Your task to perform on an android device: change alarm snooze length Image 0: 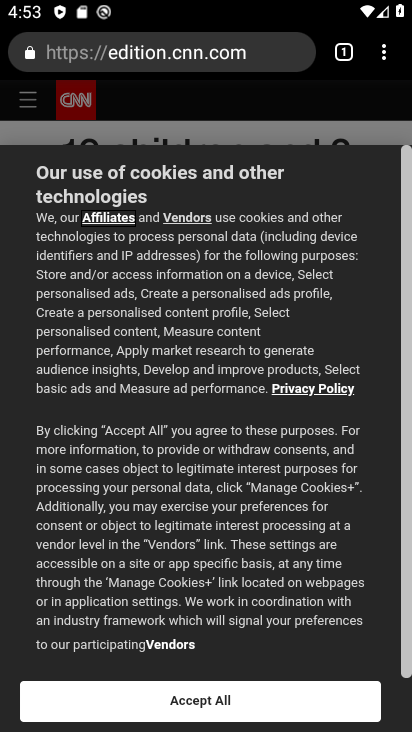
Step 0: press home button
Your task to perform on an android device: change alarm snooze length Image 1: 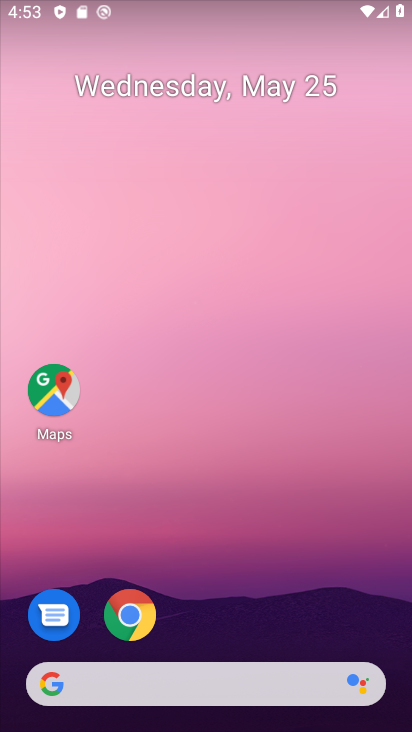
Step 1: drag from (285, 643) to (279, 183)
Your task to perform on an android device: change alarm snooze length Image 2: 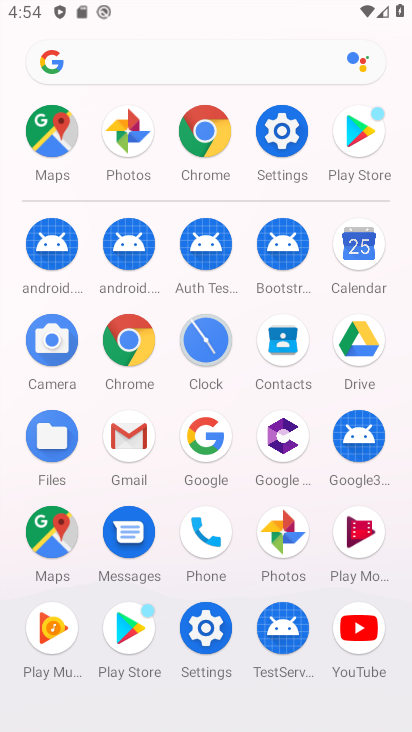
Step 2: click (219, 638)
Your task to perform on an android device: change alarm snooze length Image 3: 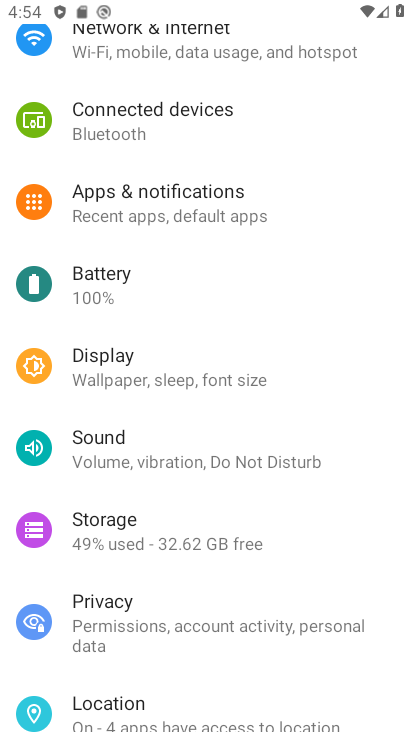
Step 3: press home button
Your task to perform on an android device: change alarm snooze length Image 4: 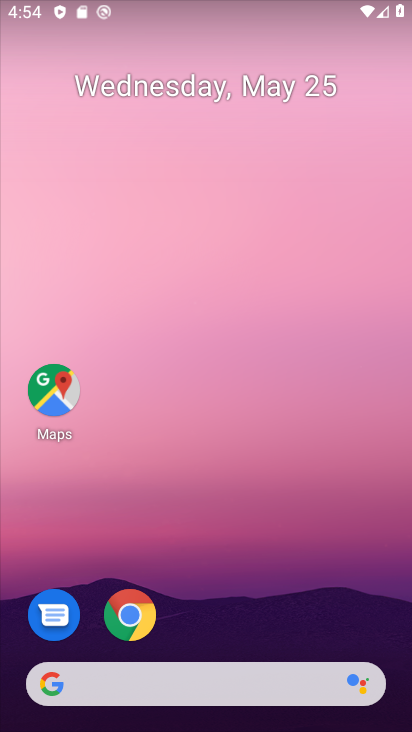
Step 4: drag from (264, 604) to (331, 33)
Your task to perform on an android device: change alarm snooze length Image 5: 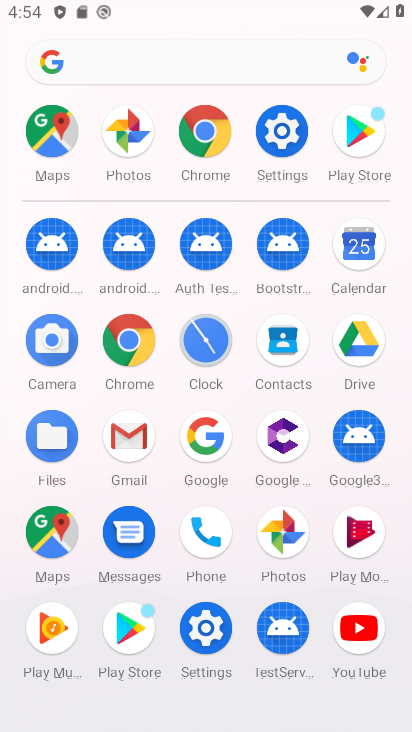
Step 5: click (203, 347)
Your task to perform on an android device: change alarm snooze length Image 6: 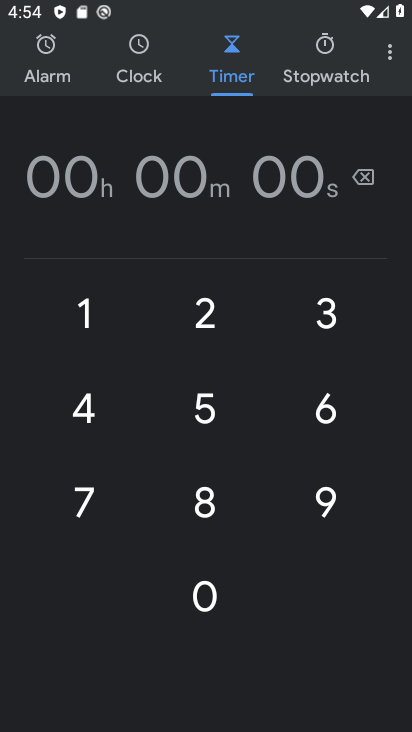
Step 6: click (396, 50)
Your task to perform on an android device: change alarm snooze length Image 7: 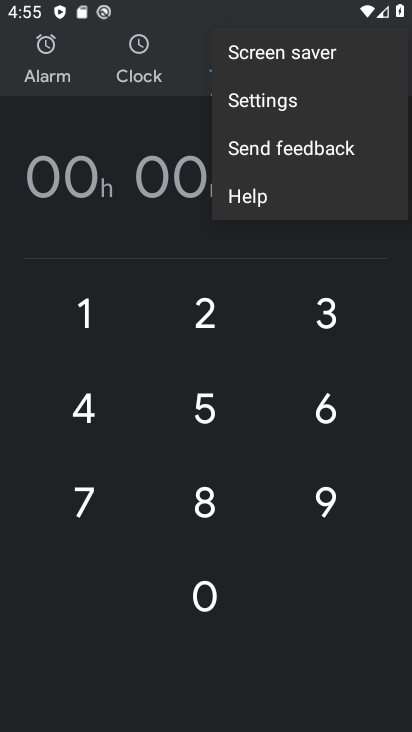
Step 7: click (255, 97)
Your task to perform on an android device: change alarm snooze length Image 8: 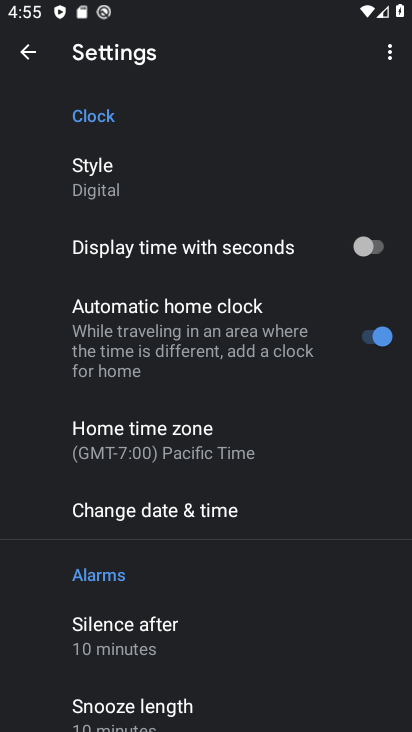
Step 8: drag from (221, 701) to (226, 305)
Your task to perform on an android device: change alarm snooze length Image 9: 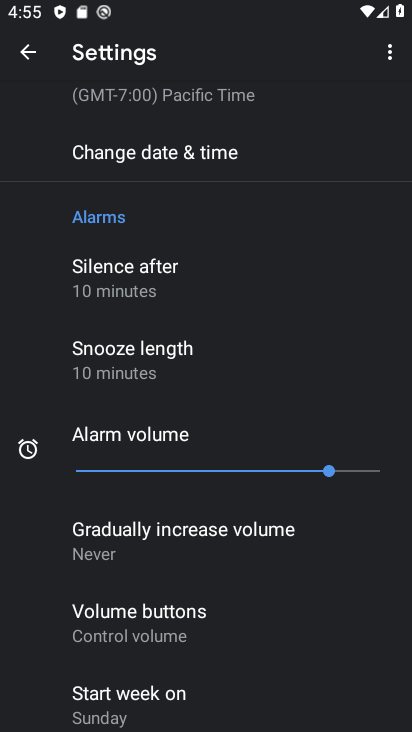
Step 9: click (176, 364)
Your task to perform on an android device: change alarm snooze length Image 10: 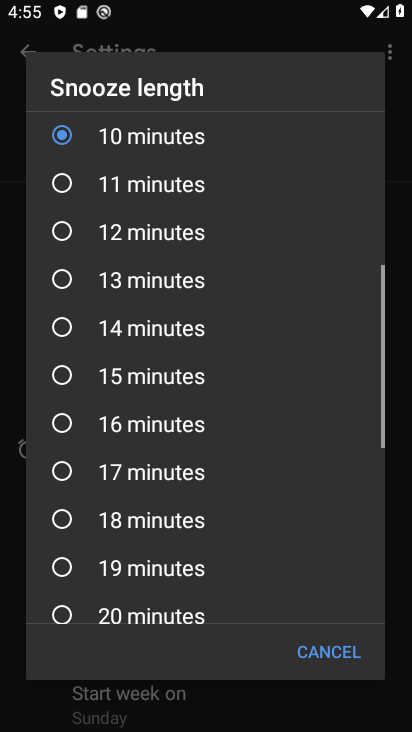
Step 10: click (180, 540)
Your task to perform on an android device: change alarm snooze length Image 11: 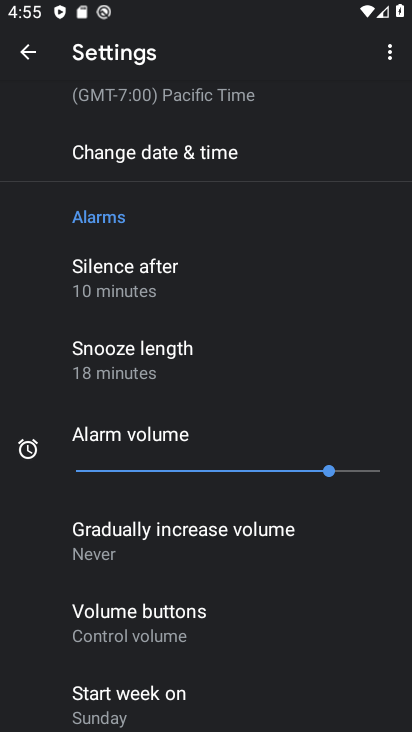
Step 11: task complete